Your task to perform on an android device: uninstall "File Manager" Image 0: 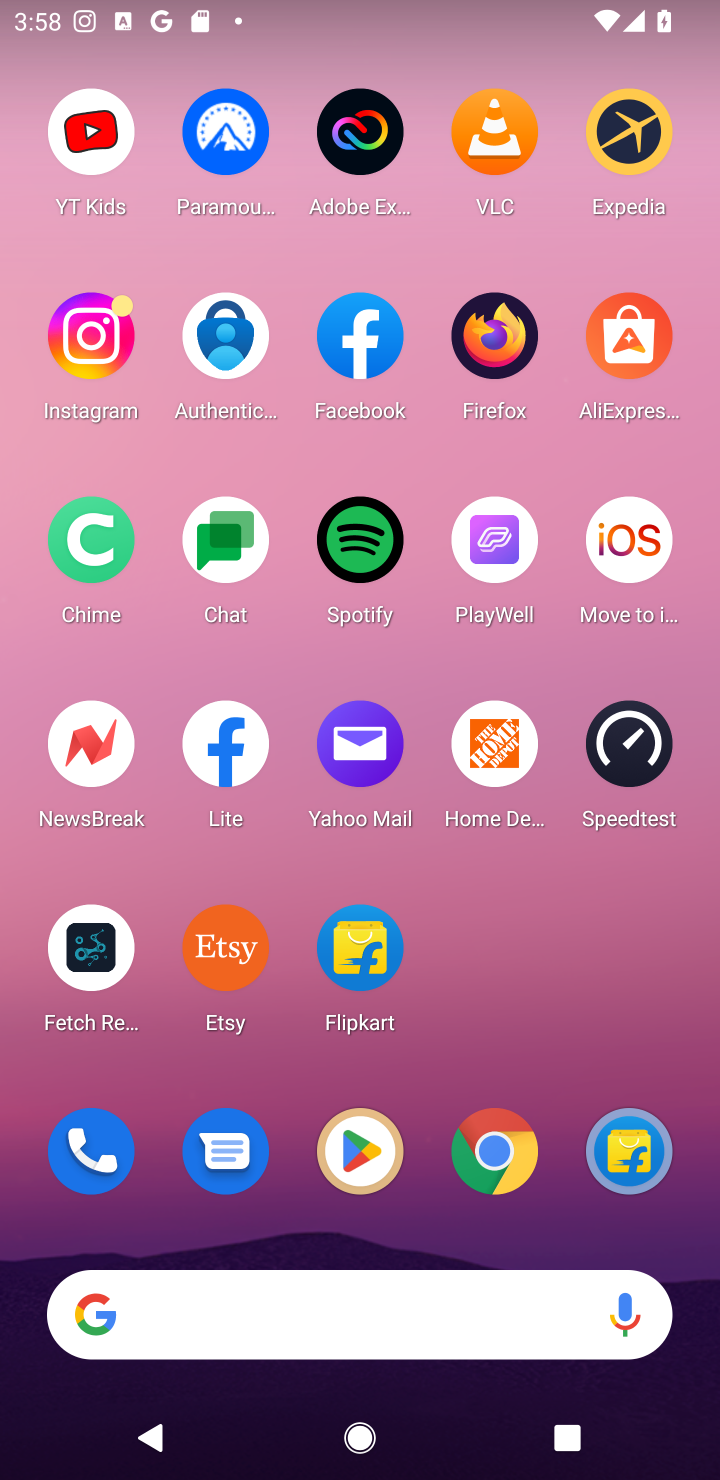
Step 0: press home button
Your task to perform on an android device: uninstall "File Manager" Image 1: 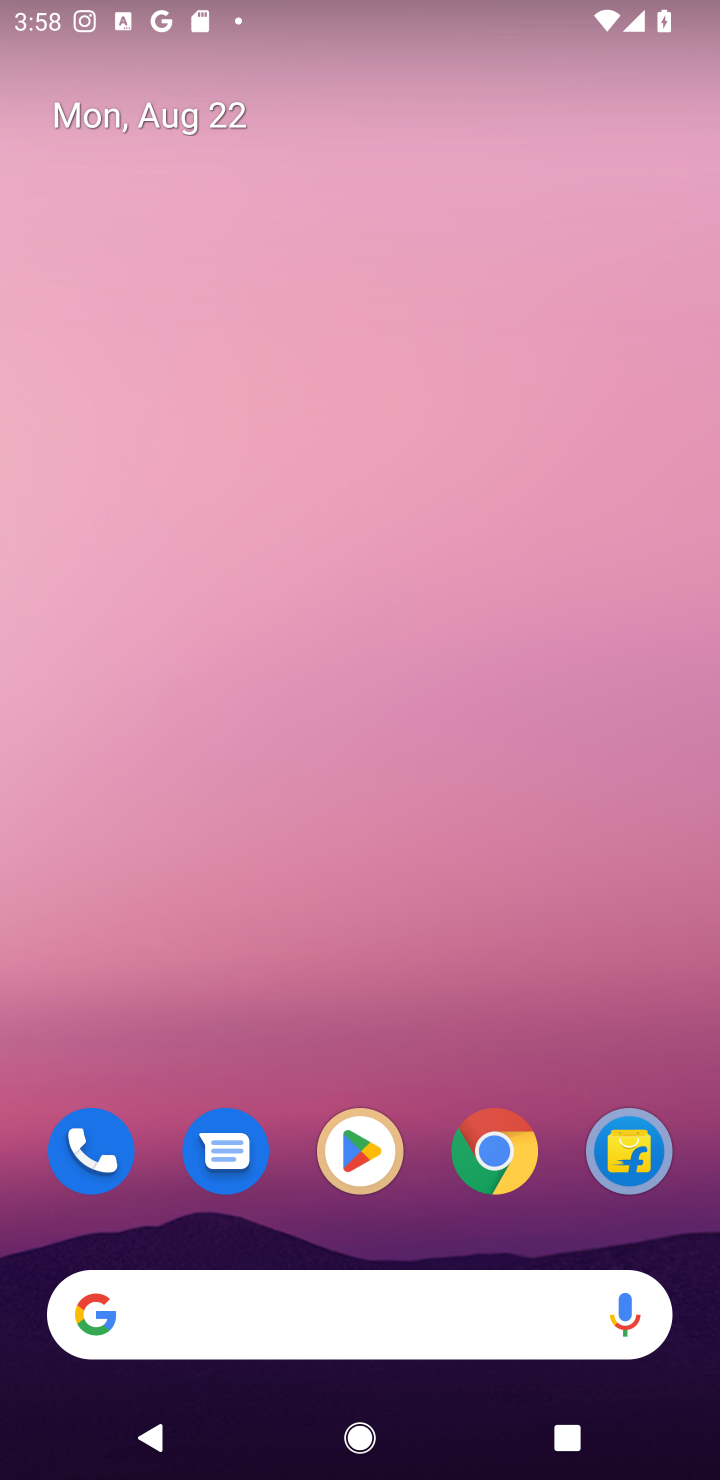
Step 1: click (355, 1133)
Your task to perform on an android device: uninstall "File Manager" Image 2: 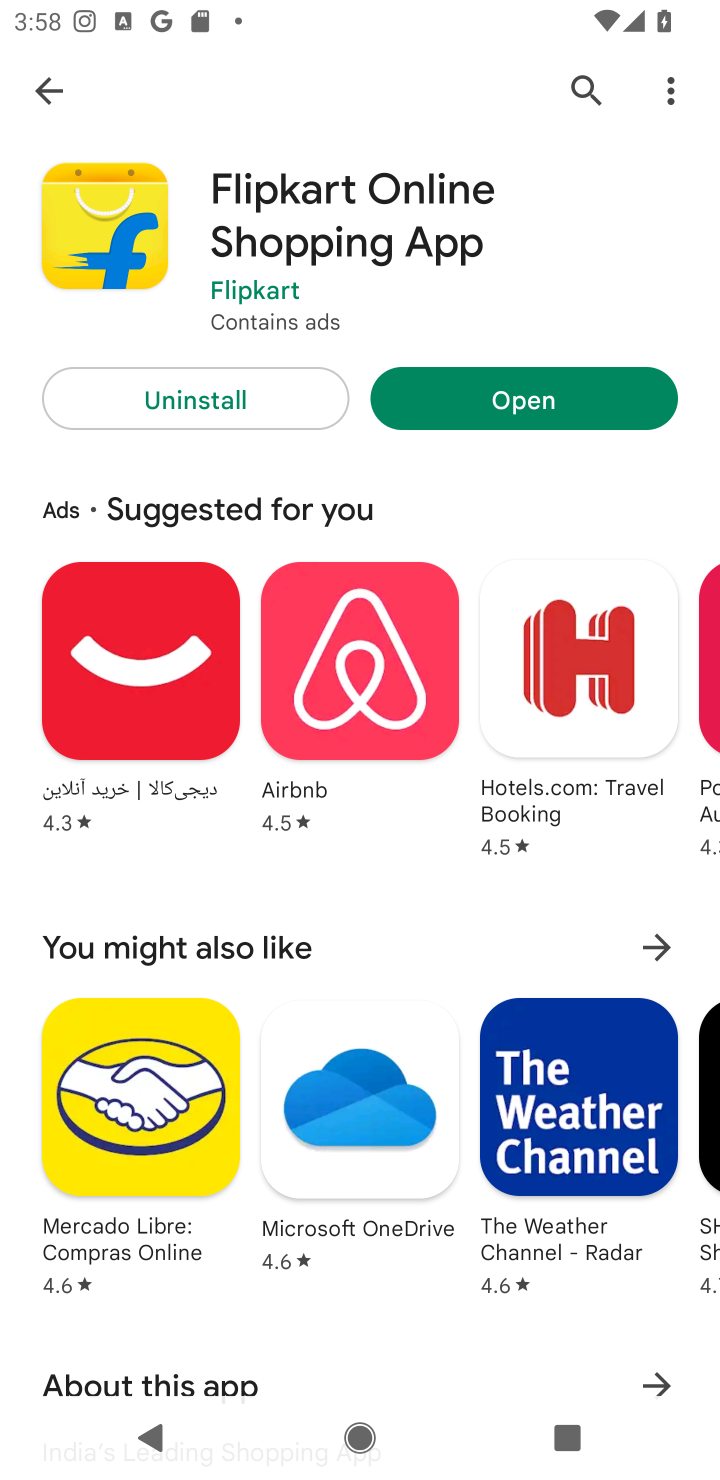
Step 2: click (584, 70)
Your task to perform on an android device: uninstall "File Manager" Image 3: 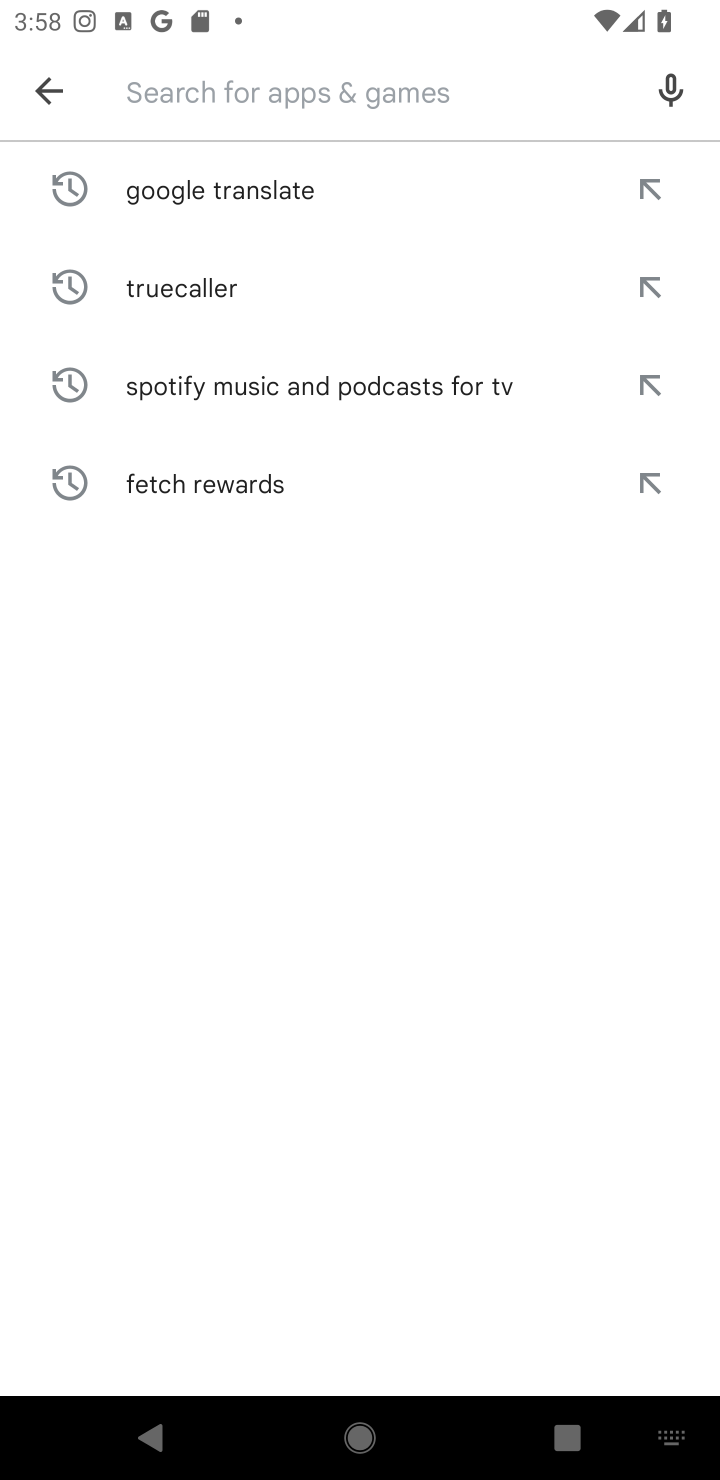
Step 3: type "File Manager"
Your task to perform on an android device: uninstall "File Manager" Image 4: 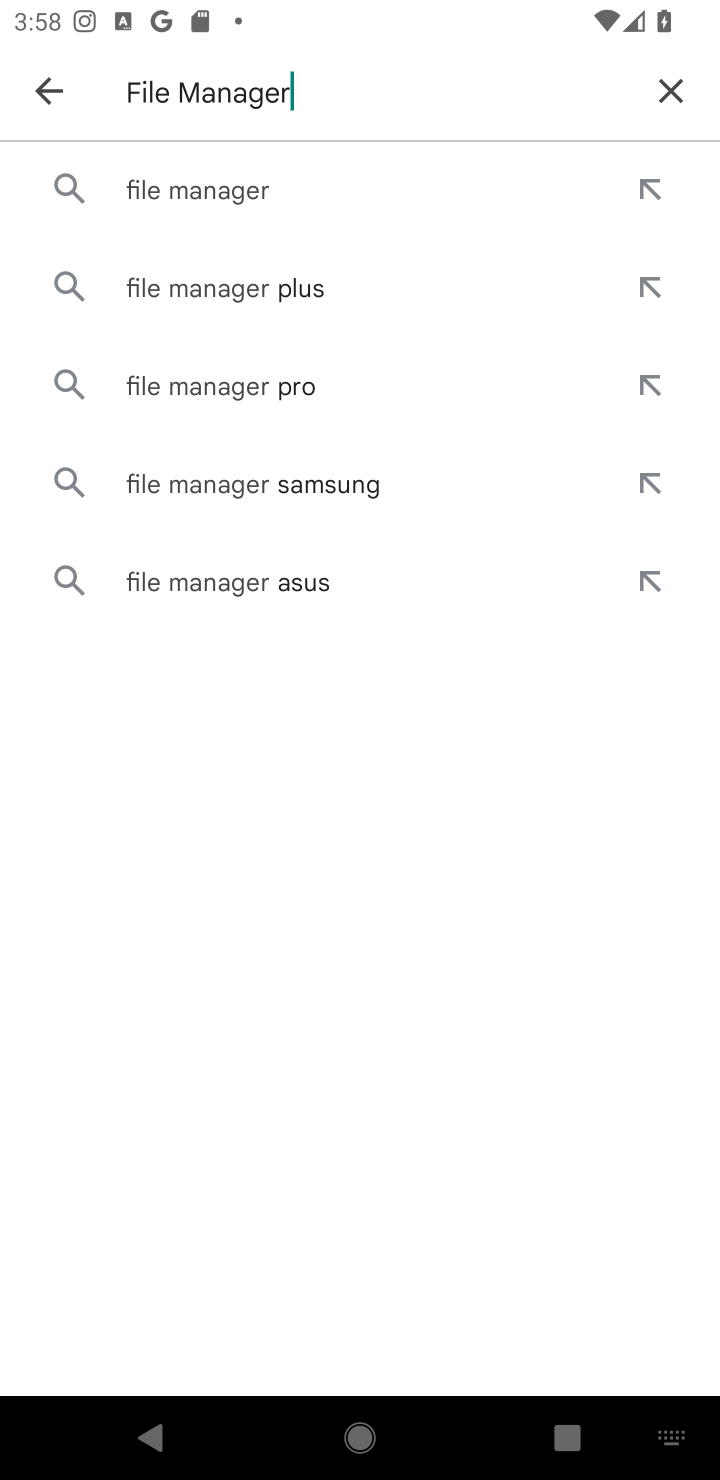
Step 4: click (231, 202)
Your task to perform on an android device: uninstall "File Manager" Image 5: 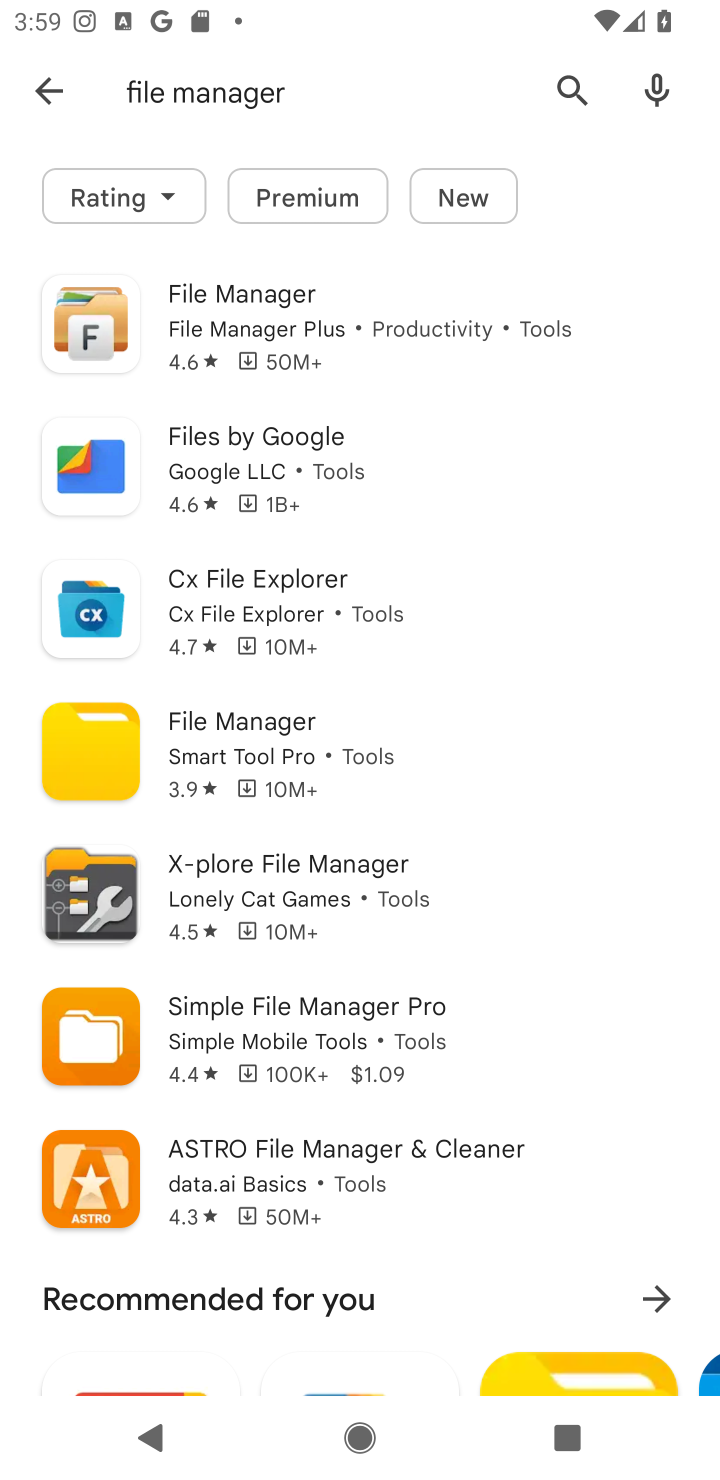
Step 5: click (208, 329)
Your task to perform on an android device: uninstall "File Manager" Image 6: 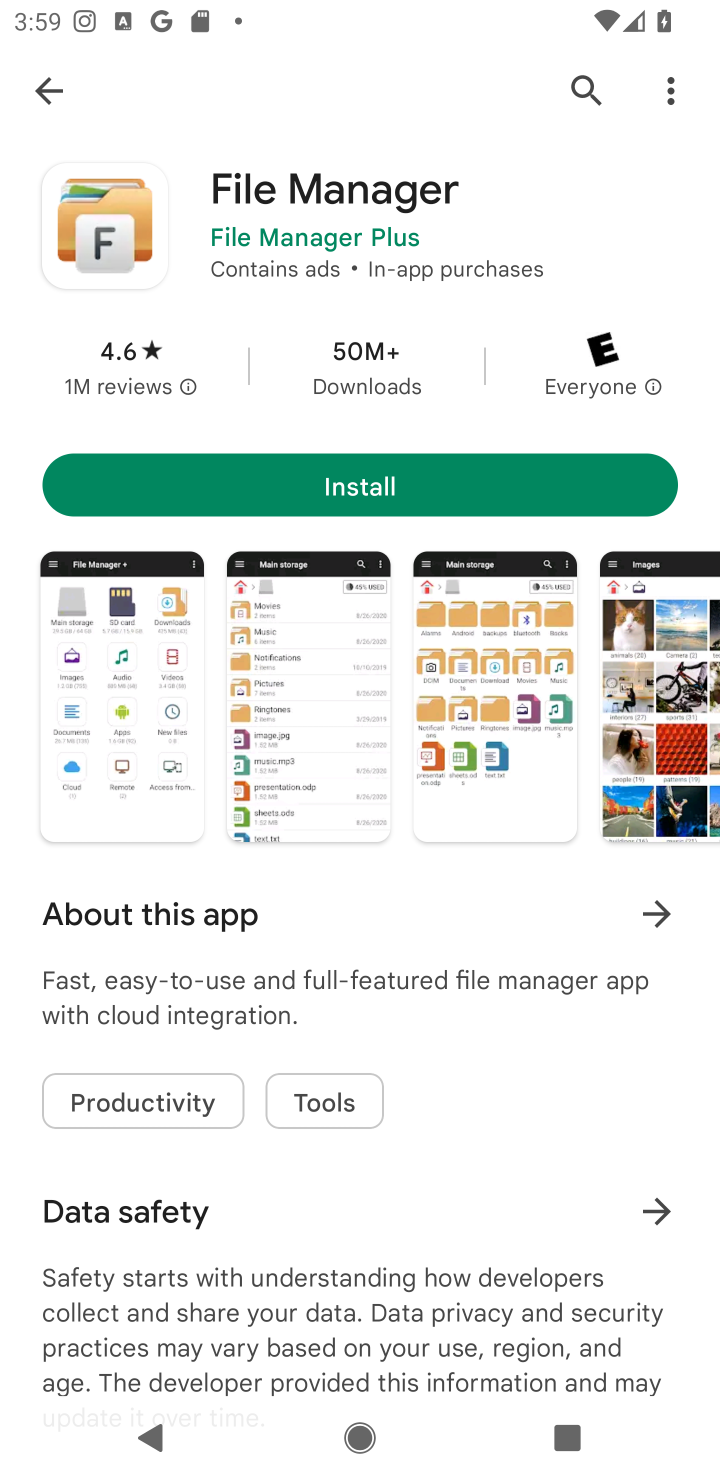
Step 6: task complete